Your task to perform on an android device: open chrome privacy settings Image 0: 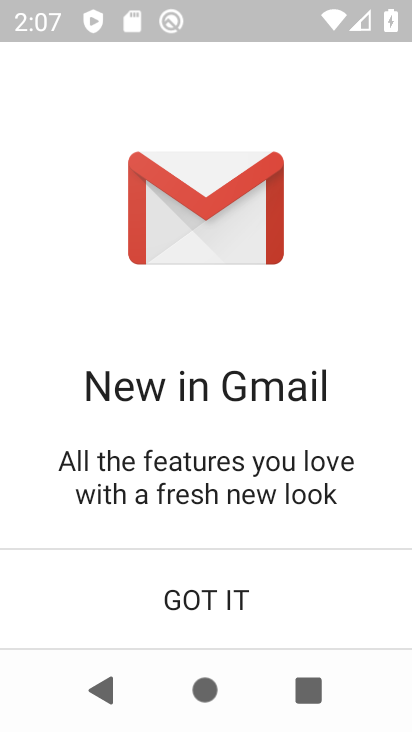
Step 0: press home button
Your task to perform on an android device: open chrome privacy settings Image 1: 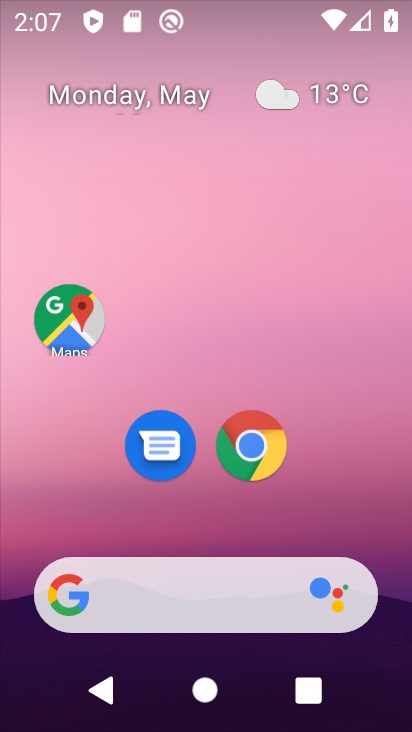
Step 1: drag from (360, 509) to (317, 7)
Your task to perform on an android device: open chrome privacy settings Image 2: 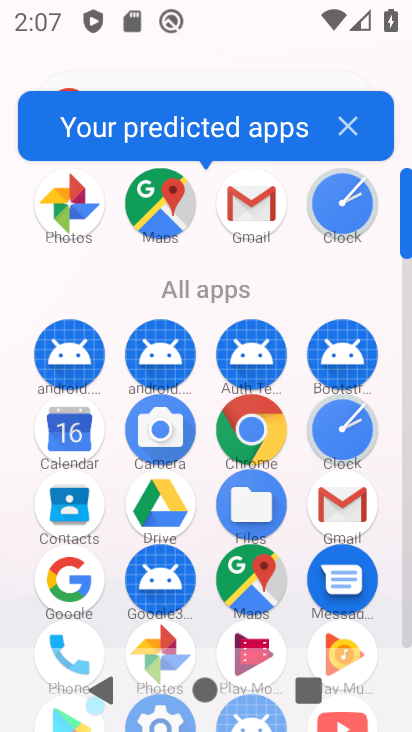
Step 2: click (267, 441)
Your task to perform on an android device: open chrome privacy settings Image 3: 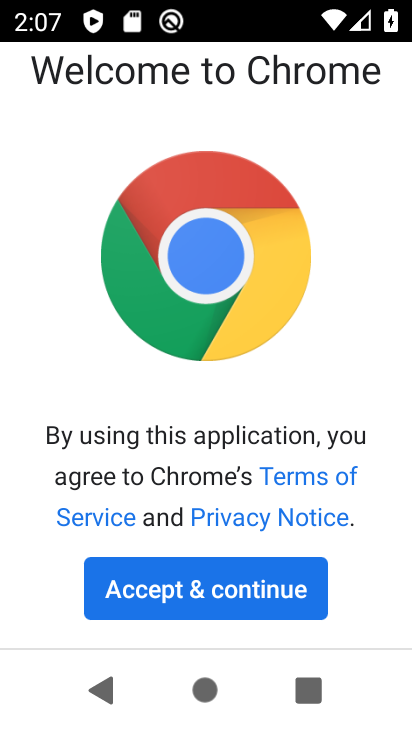
Step 3: click (167, 562)
Your task to perform on an android device: open chrome privacy settings Image 4: 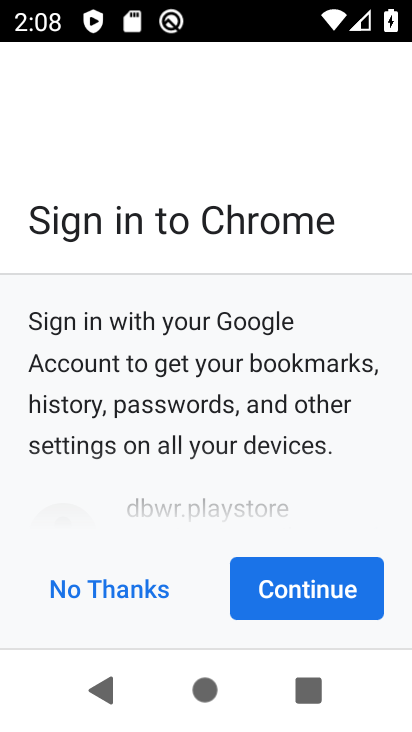
Step 4: click (300, 577)
Your task to perform on an android device: open chrome privacy settings Image 5: 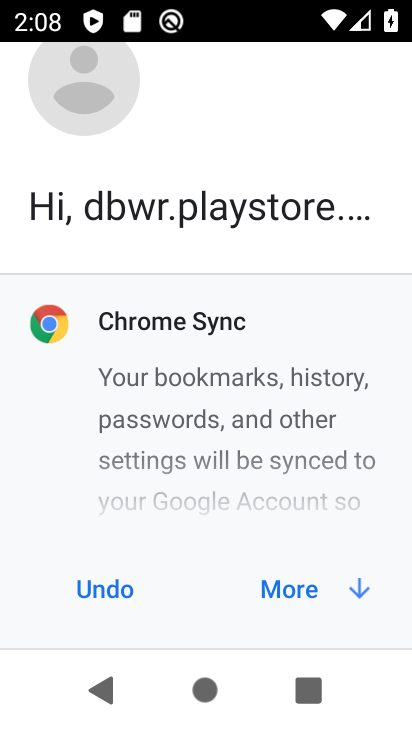
Step 5: click (300, 577)
Your task to perform on an android device: open chrome privacy settings Image 6: 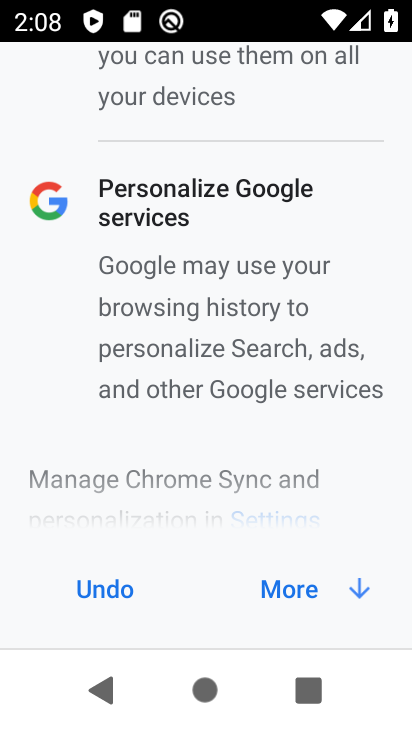
Step 6: click (300, 577)
Your task to perform on an android device: open chrome privacy settings Image 7: 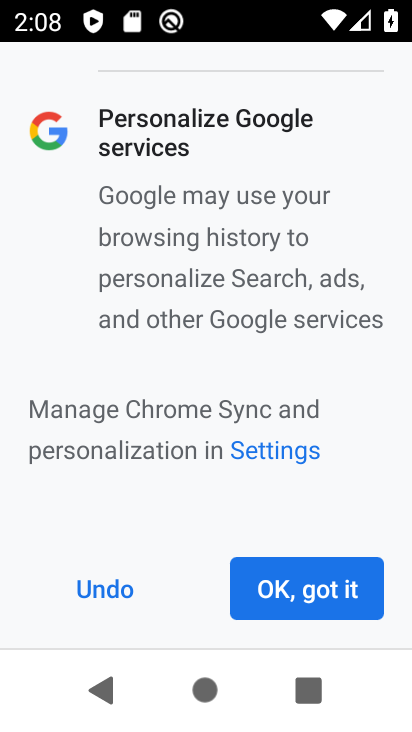
Step 7: click (309, 580)
Your task to perform on an android device: open chrome privacy settings Image 8: 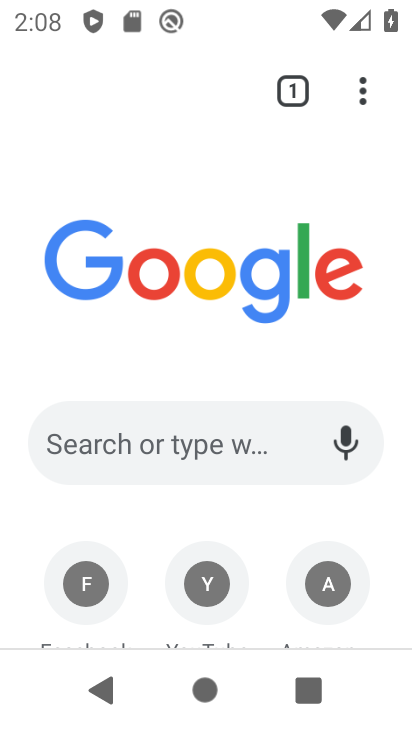
Step 8: click (368, 77)
Your task to perform on an android device: open chrome privacy settings Image 9: 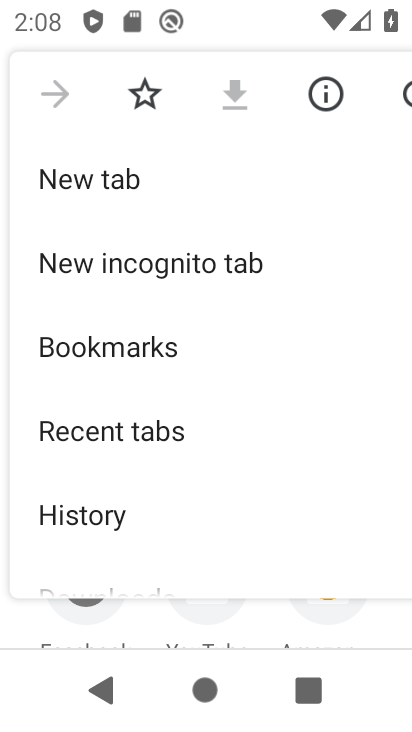
Step 9: drag from (186, 536) to (216, 53)
Your task to perform on an android device: open chrome privacy settings Image 10: 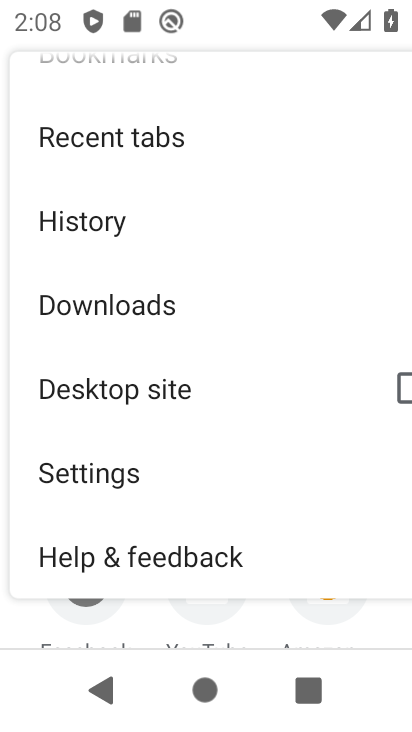
Step 10: click (135, 479)
Your task to perform on an android device: open chrome privacy settings Image 11: 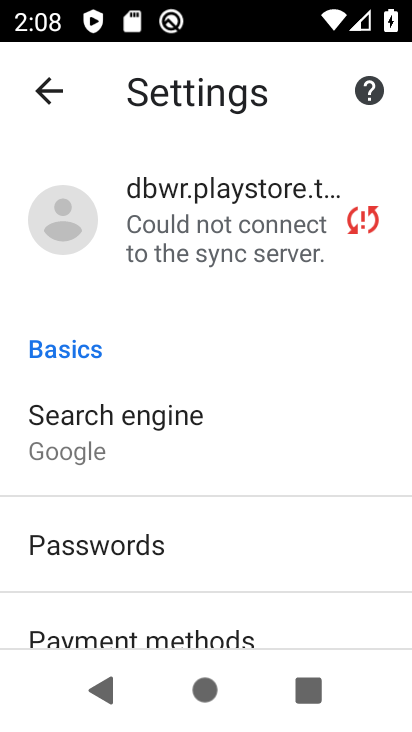
Step 11: drag from (171, 578) to (205, 123)
Your task to perform on an android device: open chrome privacy settings Image 12: 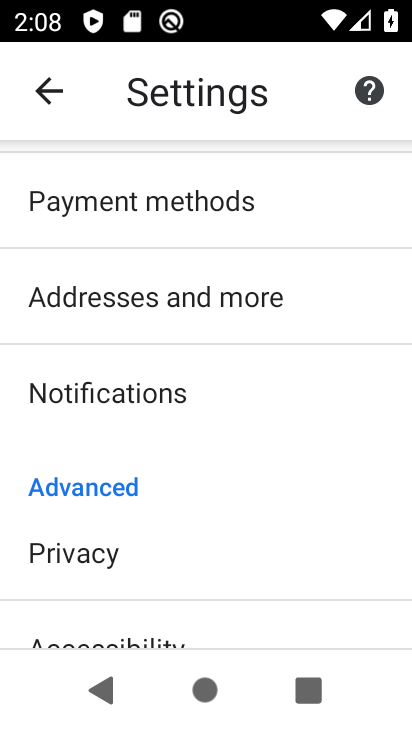
Step 12: click (126, 547)
Your task to perform on an android device: open chrome privacy settings Image 13: 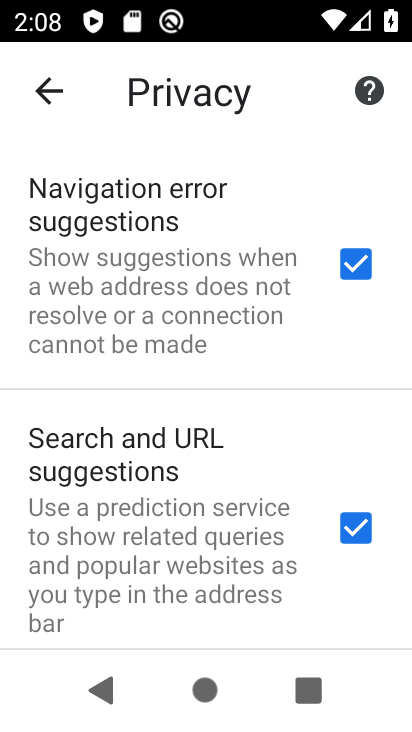
Step 13: task complete